Your task to perform on an android device: Open wifi settings Image 0: 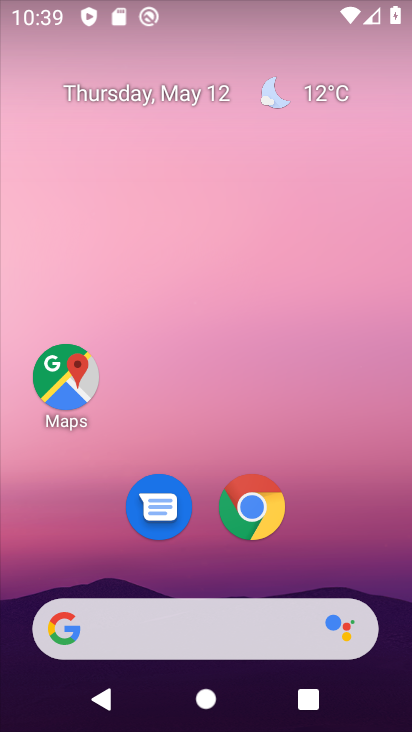
Step 0: drag from (190, 524) to (215, 34)
Your task to perform on an android device: Open wifi settings Image 1: 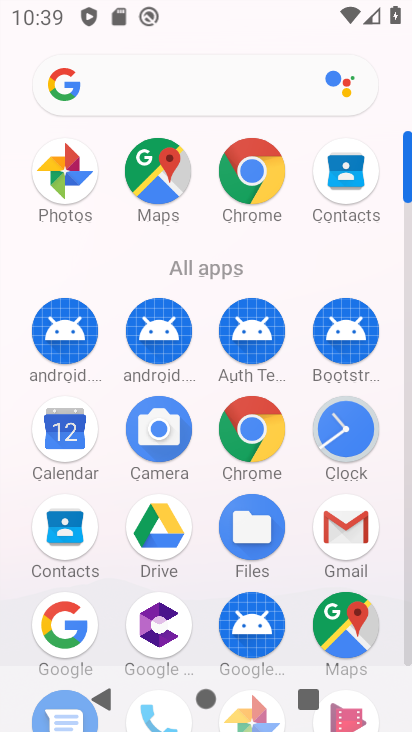
Step 1: drag from (200, 491) to (276, 15)
Your task to perform on an android device: Open wifi settings Image 2: 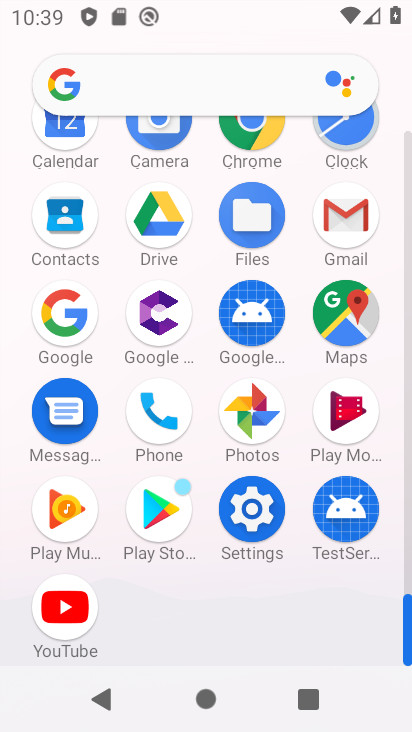
Step 2: click (248, 520)
Your task to perform on an android device: Open wifi settings Image 3: 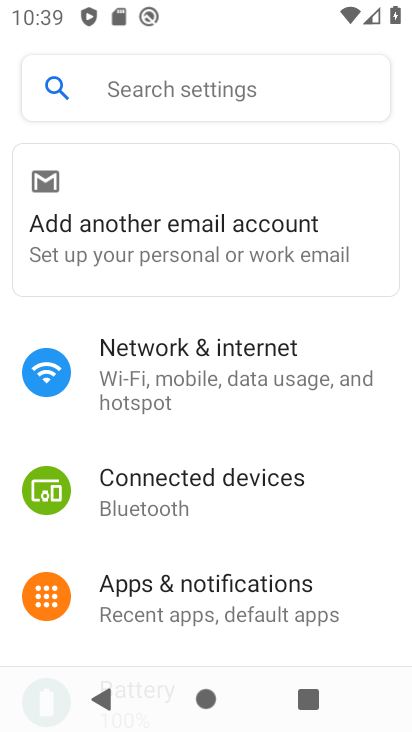
Step 3: click (239, 361)
Your task to perform on an android device: Open wifi settings Image 4: 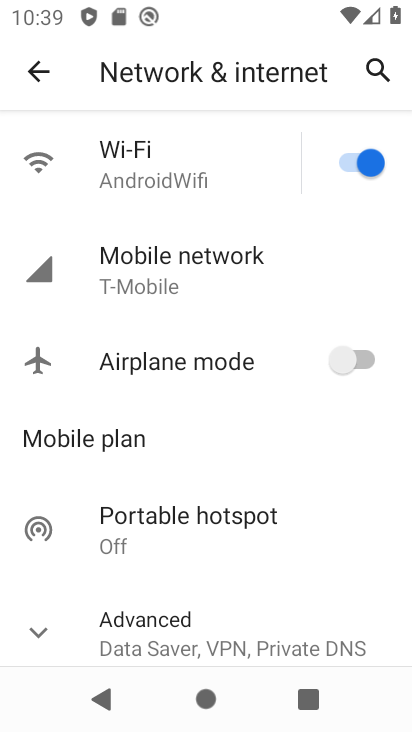
Step 4: click (169, 137)
Your task to perform on an android device: Open wifi settings Image 5: 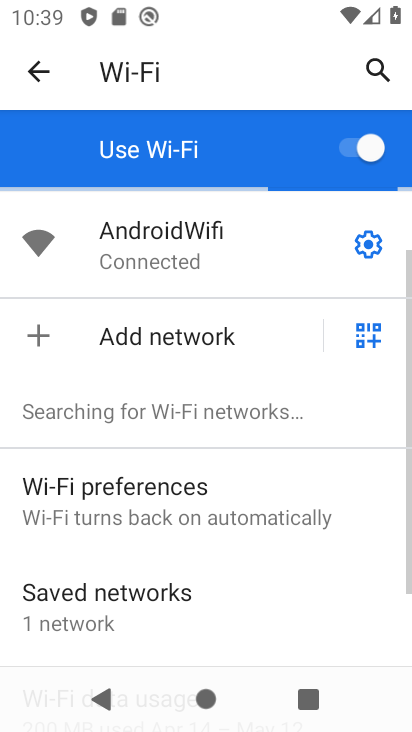
Step 5: task complete